Your task to perform on an android device: Open wifi settings Image 0: 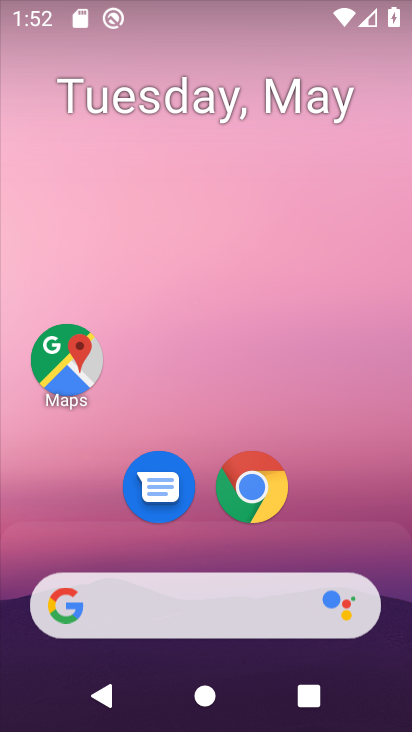
Step 0: click (193, 199)
Your task to perform on an android device: Open wifi settings Image 1: 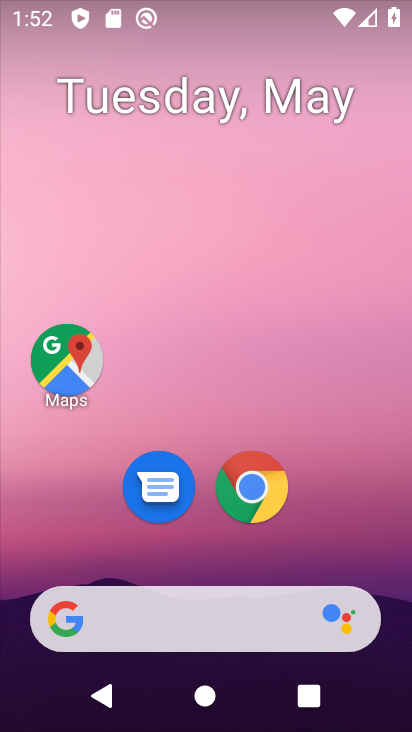
Step 1: press home button
Your task to perform on an android device: Open wifi settings Image 2: 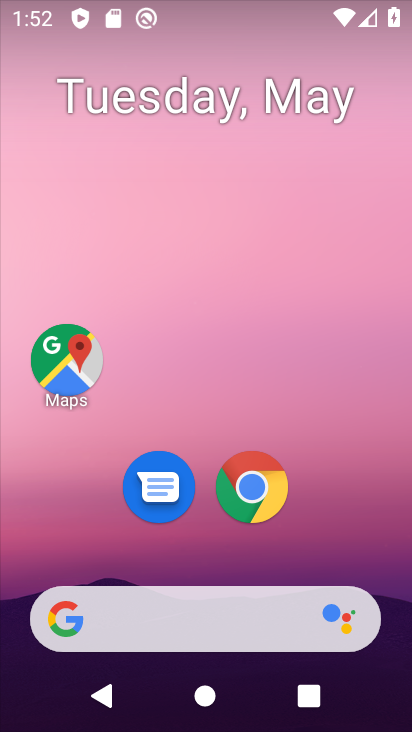
Step 2: drag from (386, 511) to (368, 261)
Your task to perform on an android device: Open wifi settings Image 3: 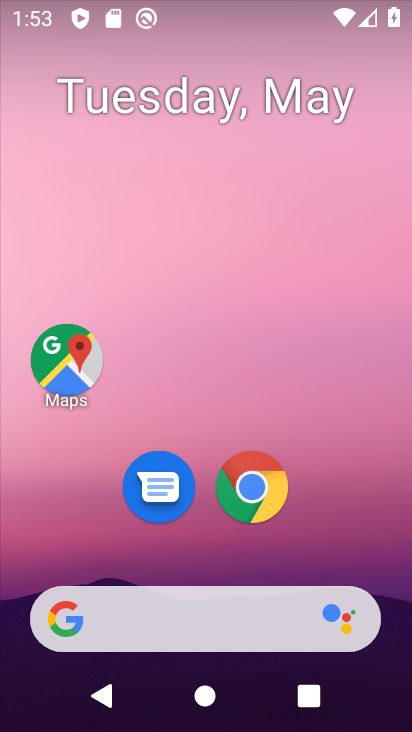
Step 3: drag from (393, 649) to (363, 333)
Your task to perform on an android device: Open wifi settings Image 4: 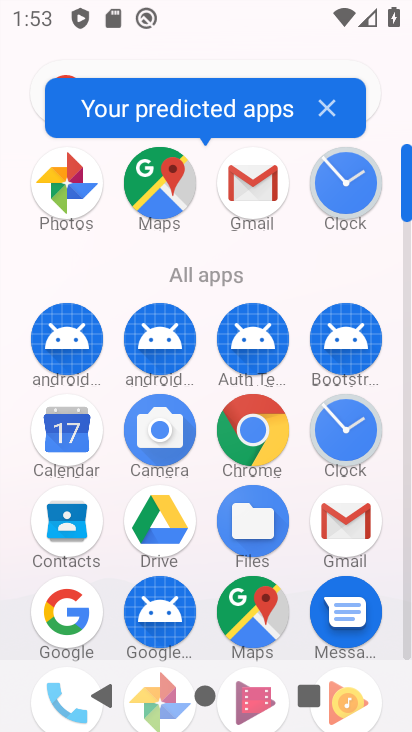
Step 4: drag from (406, 153) to (399, 98)
Your task to perform on an android device: Open wifi settings Image 5: 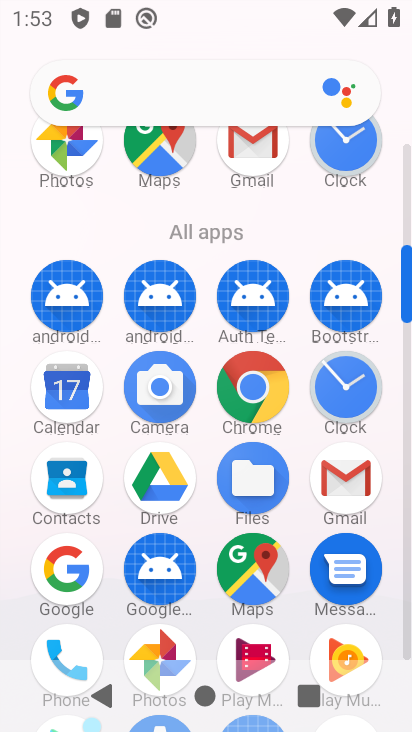
Step 5: drag from (404, 258) to (398, 211)
Your task to perform on an android device: Open wifi settings Image 6: 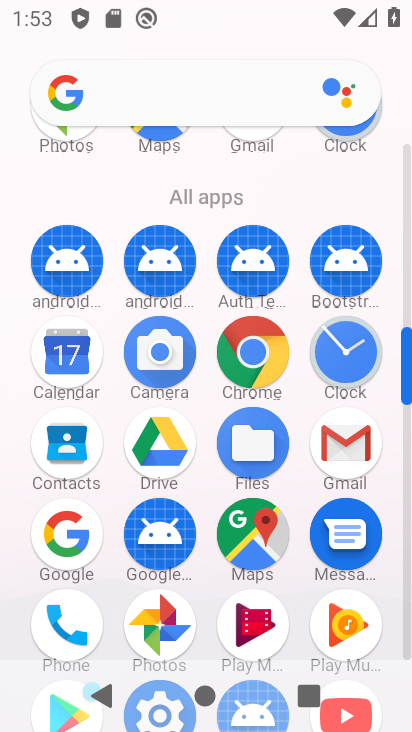
Step 6: click (400, 338)
Your task to perform on an android device: Open wifi settings Image 7: 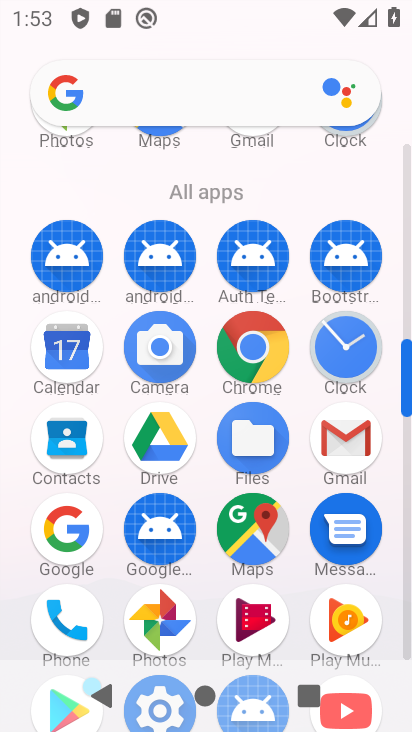
Step 7: click (403, 316)
Your task to perform on an android device: Open wifi settings Image 8: 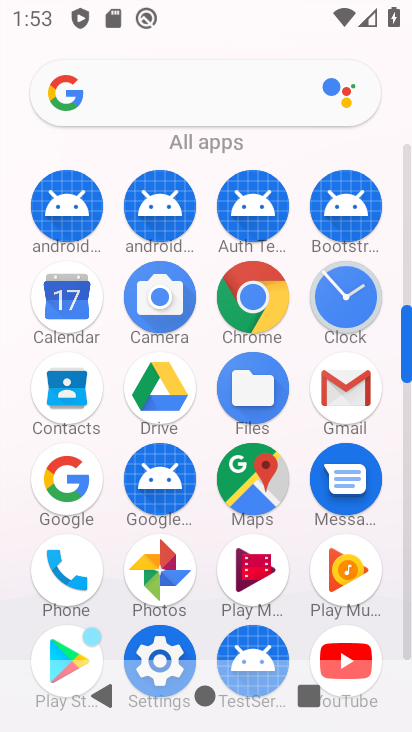
Step 8: click (148, 641)
Your task to perform on an android device: Open wifi settings Image 9: 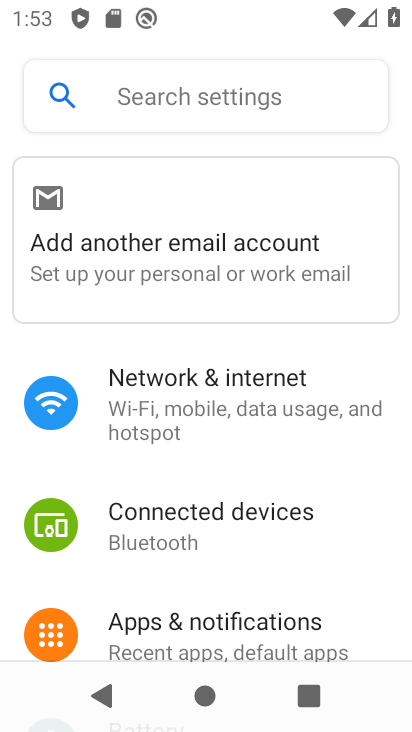
Step 9: click (195, 386)
Your task to perform on an android device: Open wifi settings Image 10: 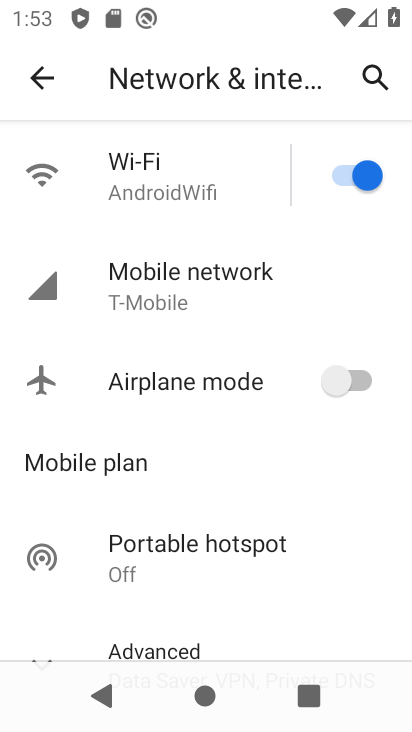
Step 10: task complete